Your task to perform on an android device: Where can I buy a nice beach bag? Image 0: 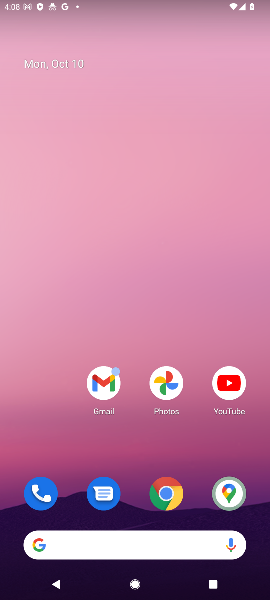
Step 0: click (139, 541)
Your task to perform on an android device: Where can I buy a nice beach bag? Image 1: 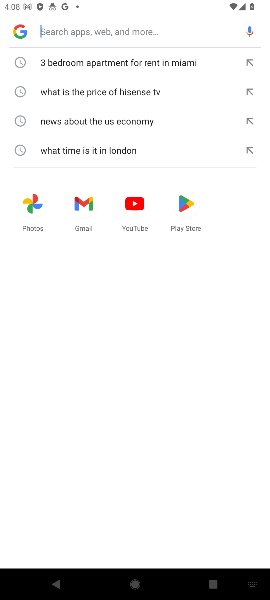
Step 1: type "Where can I buy a nice beach bag?"
Your task to perform on an android device: Where can I buy a nice beach bag? Image 2: 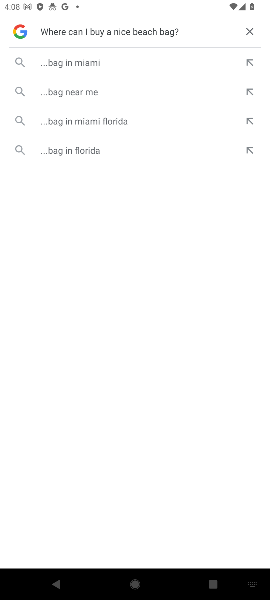
Step 2: click (190, 58)
Your task to perform on an android device: Where can I buy a nice beach bag? Image 3: 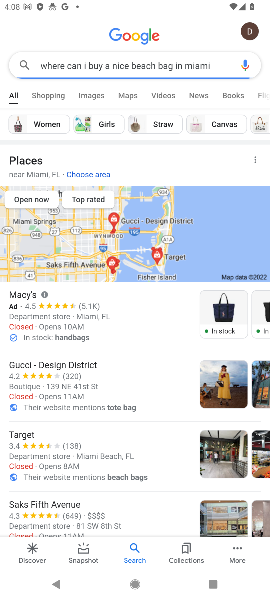
Step 3: task complete